Your task to perform on an android device: Go to Maps Image 0: 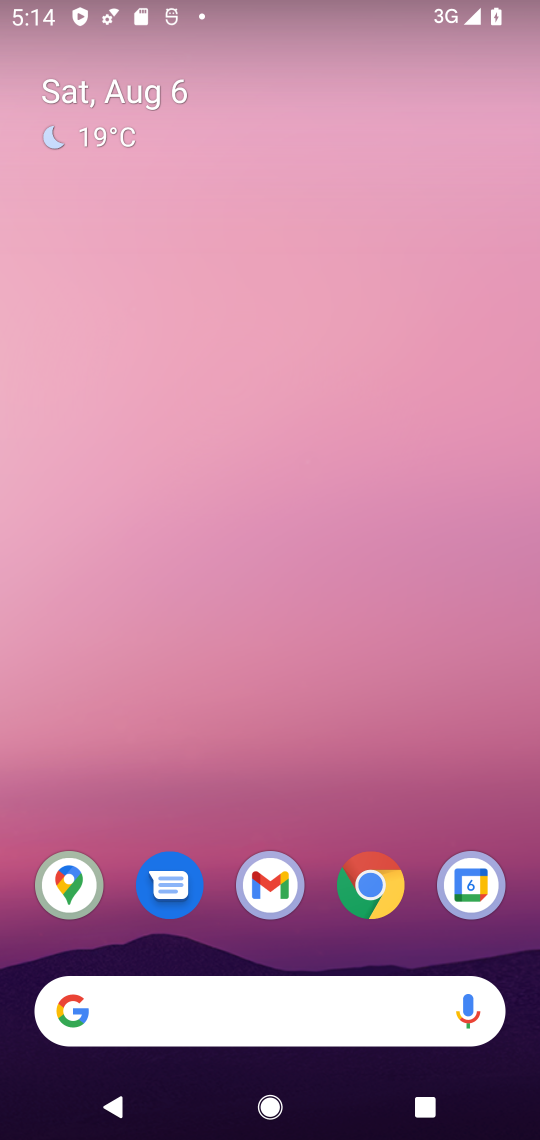
Step 0: drag from (404, 926) to (343, 61)
Your task to perform on an android device: Go to Maps Image 1: 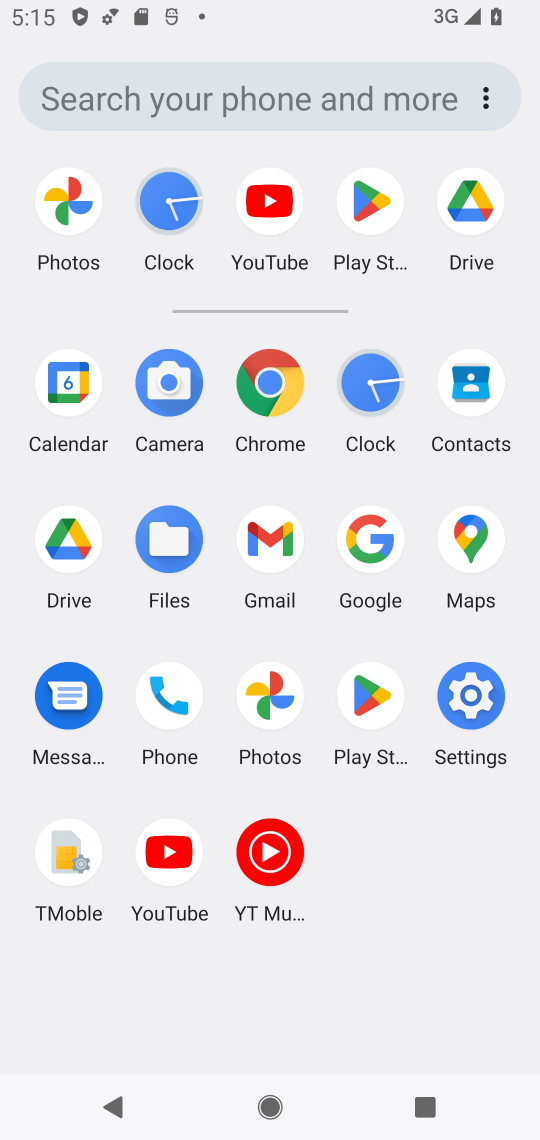
Step 1: click (466, 548)
Your task to perform on an android device: Go to Maps Image 2: 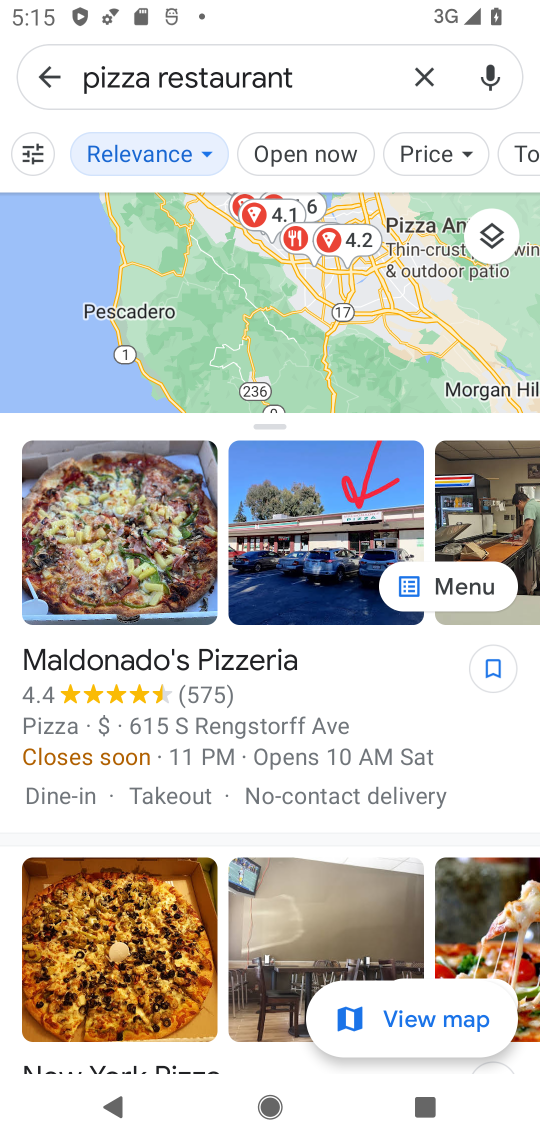
Step 2: click (428, 73)
Your task to perform on an android device: Go to Maps Image 3: 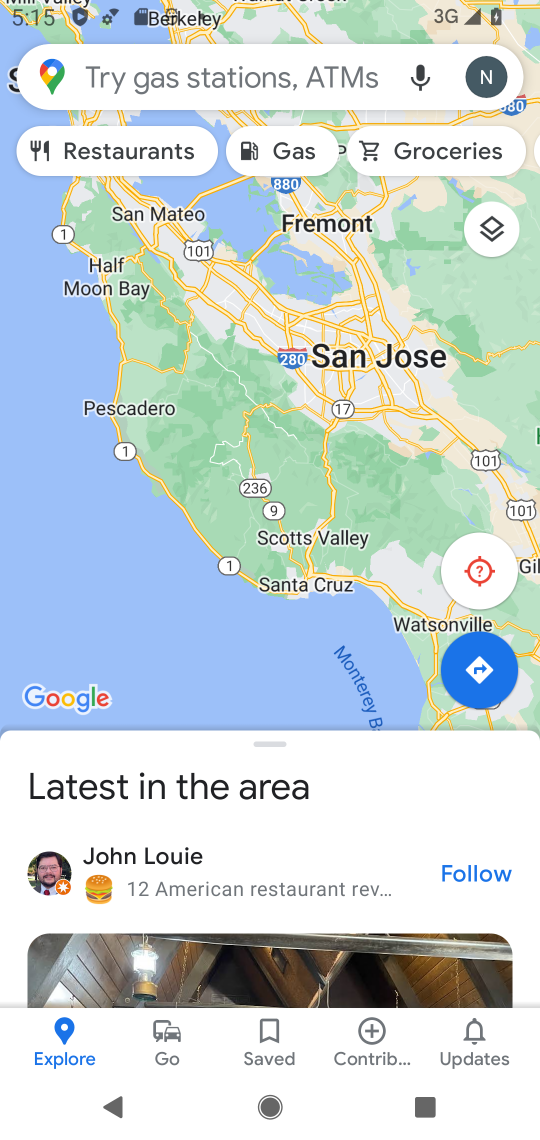
Step 3: task complete